Your task to perform on an android device: Go to Maps Image 0: 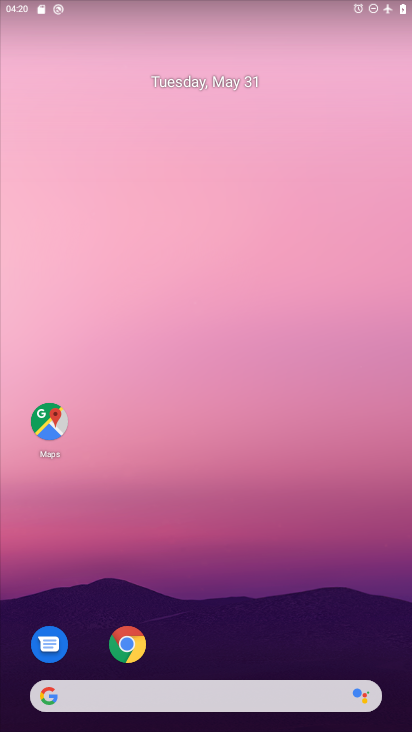
Step 0: click (50, 414)
Your task to perform on an android device: Go to Maps Image 1: 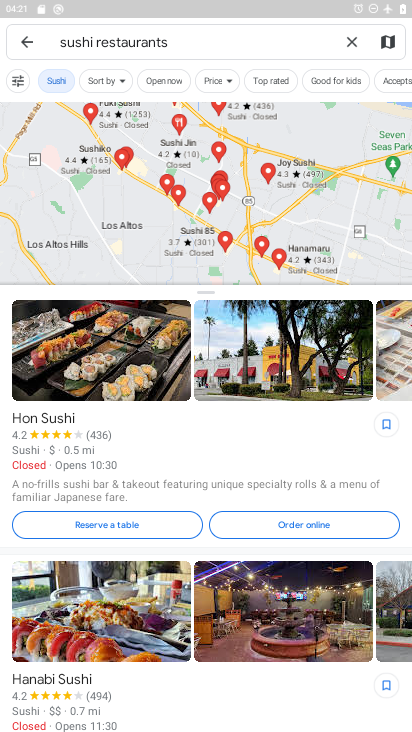
Step 1: task complete